Your task to perform on an android device: stop showing notifications on the lock screen Image 0: 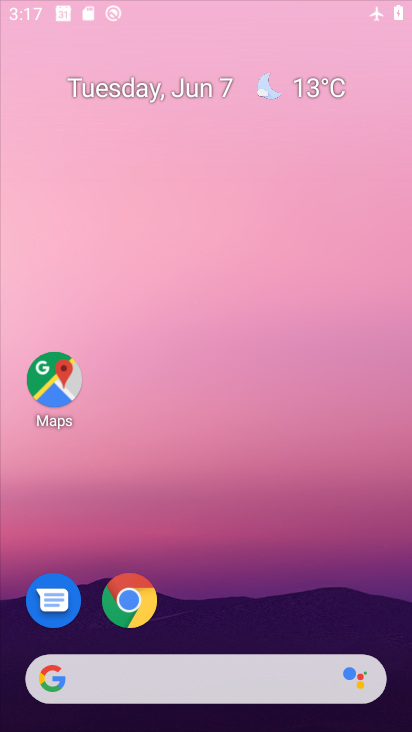
Step 0: drag from (335, 236) to (340, 186)
Your task to perform on an android device: stop showing notifications on the lock screen Image 1: 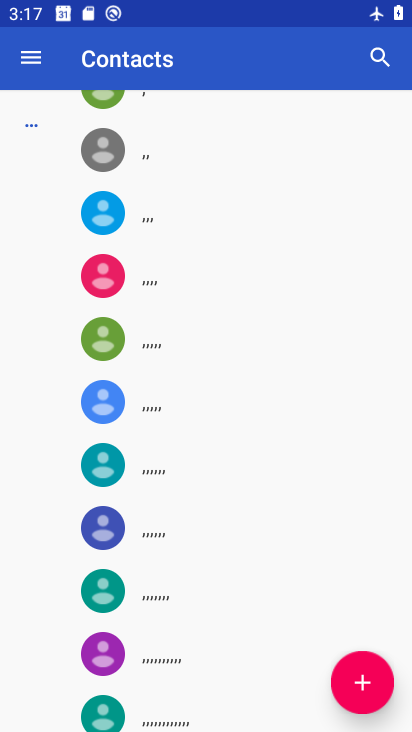
Step 1: press home button
Your task to perform on an android device: stop showing notifications on the lock screen Image 2: 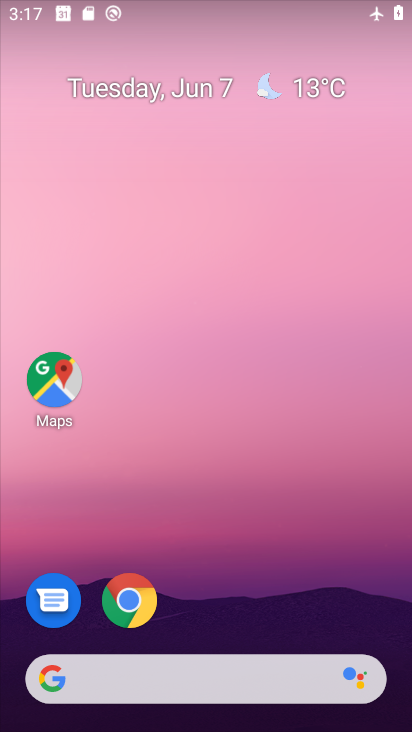
Step 2: drag from (308, 590) to (306, 190)
Your task to perform on an android device: stop showing notifications on the lock screen Image 3: 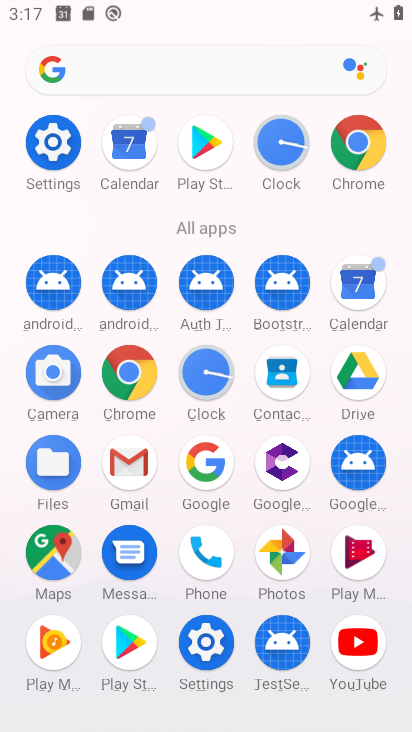
Step 3: click (59, 148)
Your task to perform on an android device: stop showing notifications on the lock screen Image 4: 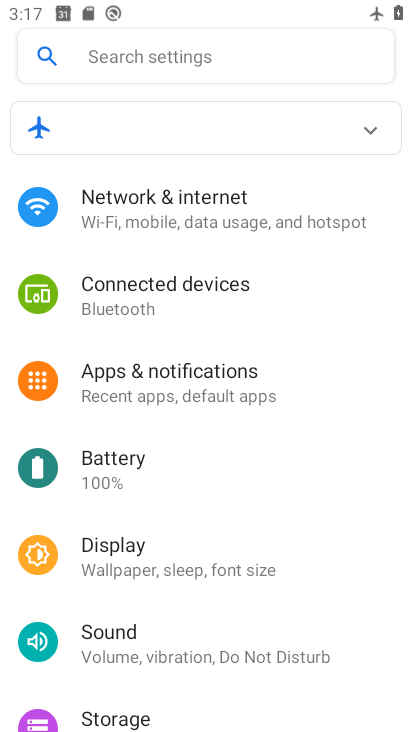
Step 4: click (174, 387)
Your task to perform on an android device: stop showing notifications on the lock screen Image 5: 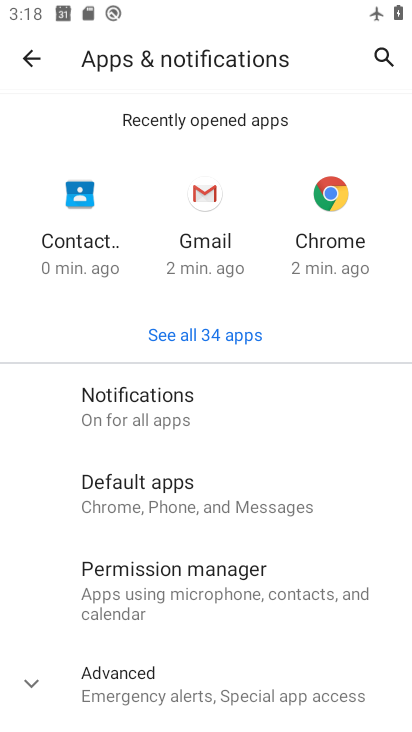
Step 5: click (167, 409)
Your task to perform on an android device: stop showing notifications on the lock screen Image 6: 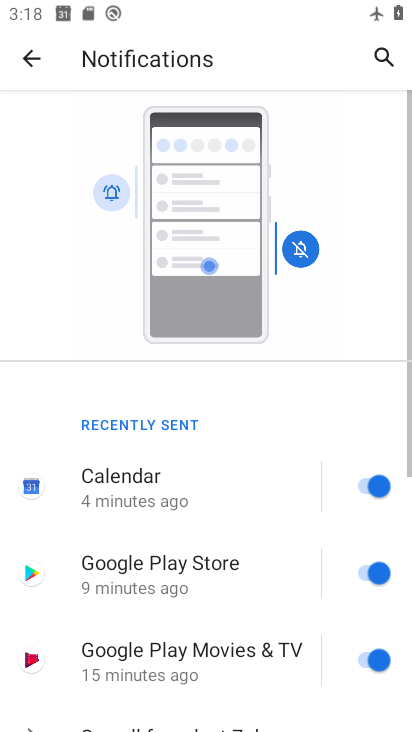
Step 6: drag from (227, 538) to (257, 125)
Your task to perform on an android device: stop showing notifications on the lock screen Image 7: 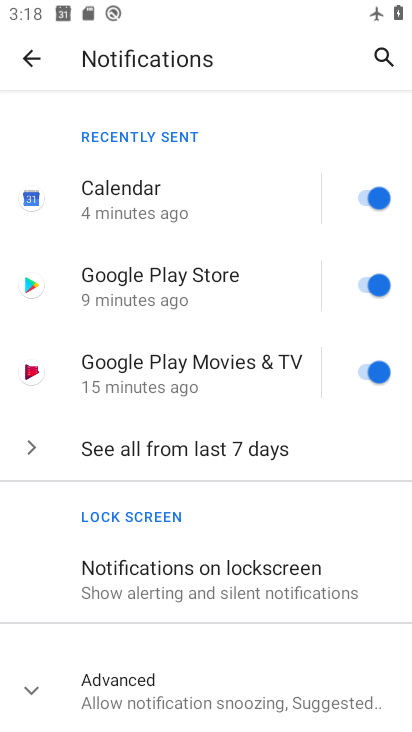
Step 7: click (193, 583)
Your task to perform on an android device: stop showing notifications on the lock screen Image 8: 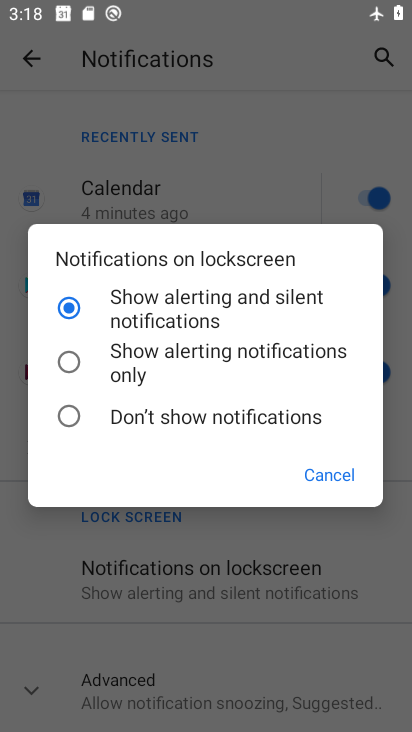
Step 8: click (233, 415)
Your task to perform on an android device: stop showing notifications on the lock screen Image 9: 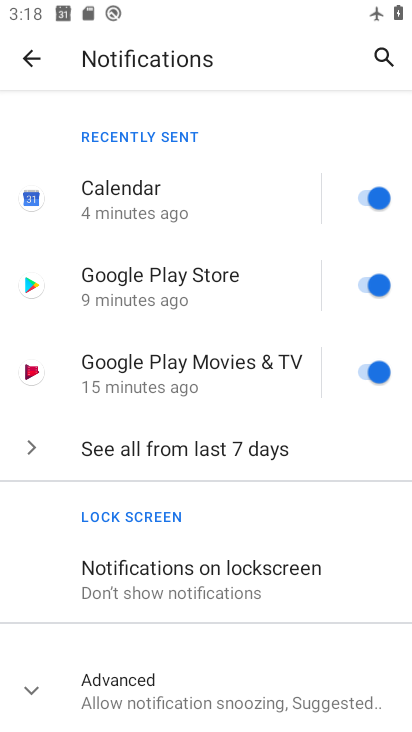
Step 9: task complete